Your task to perform on an android device: Search for sushi restaurants on Maps Image 0: 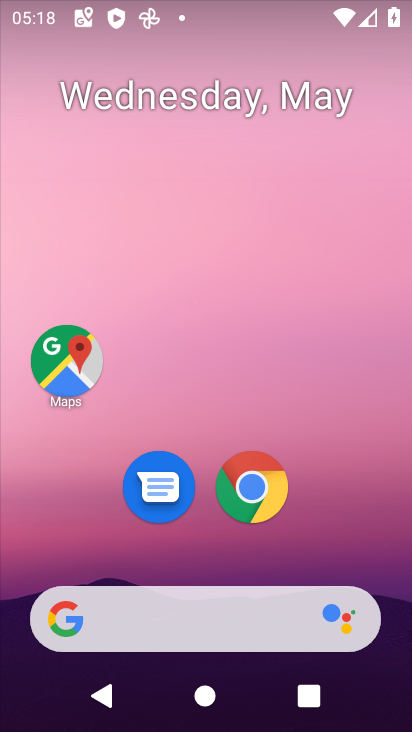
Step 0: click (59, 382)
Your task to perform on an android device: Search for sushi restaurants on Maps Image 1: 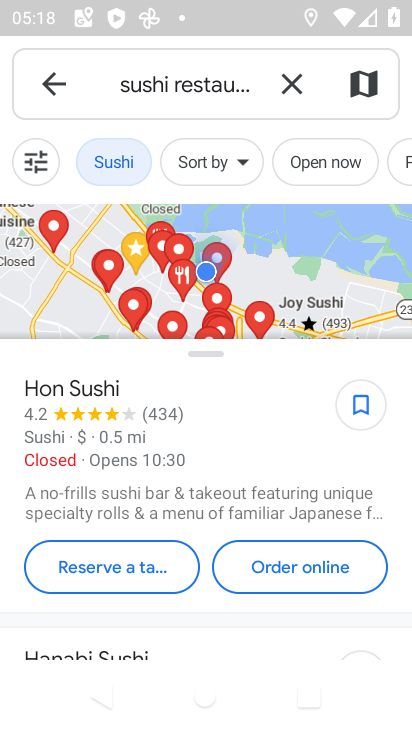
Step 1: task complete